Your task to perform on an android device: turn on sleep mode Image 0: 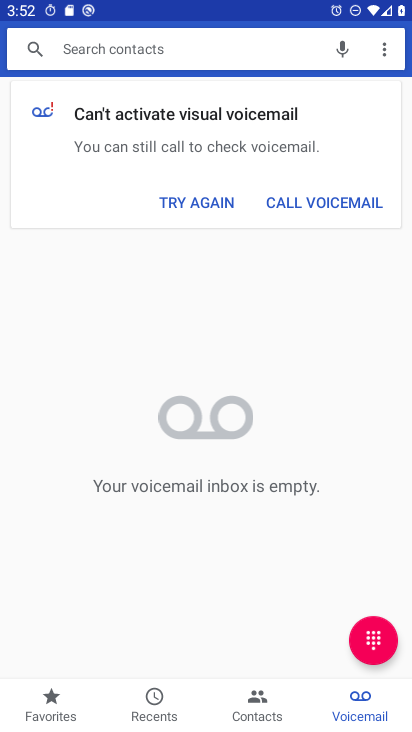
Step 0: drag from (312, 689) to (304, 252)
Your task to perform on an android device: turn on sleep mode Image 1: 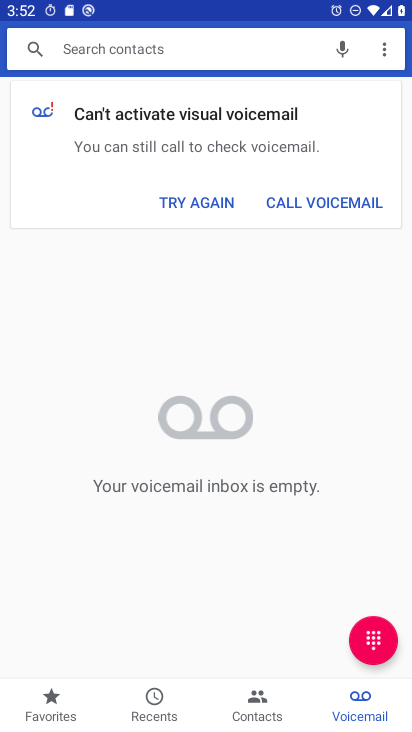
Step 1: press home button
Your task to perform on an android device: turn on sleep mode Image 2: 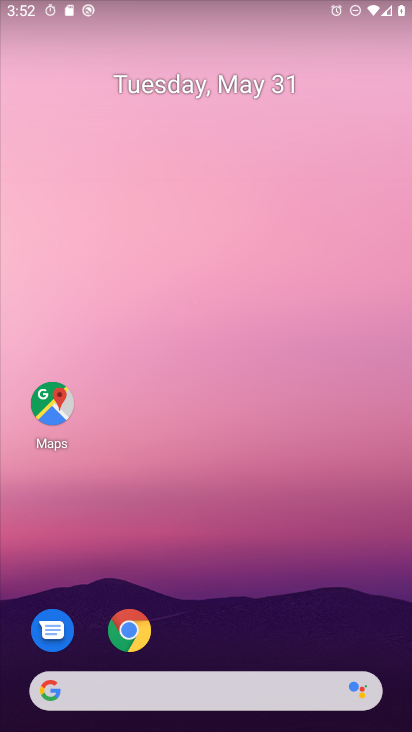
Step 2: drag from (199, 697) to (228, 48)
Your task to perform on an android device: turn on sleep mode Image 3: 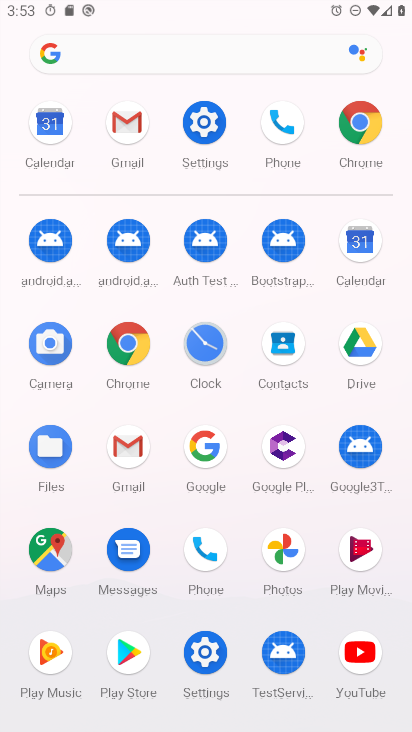
Step 3: click (205, 138)
Your task to perform on an android device: turn on sleep mode Image 4: 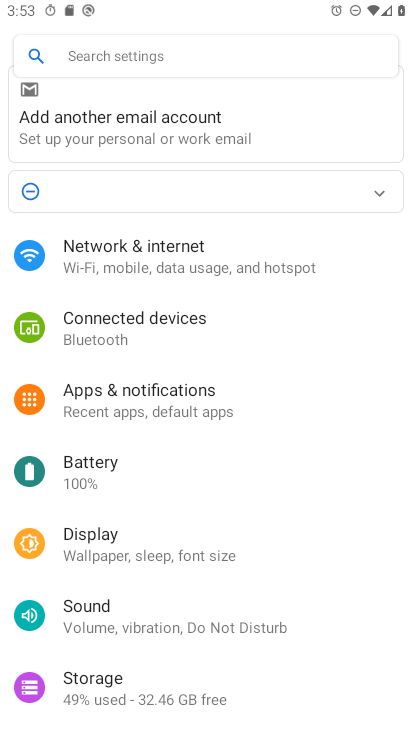
Step 4: click (129, 553)
Your task to perform on an android device: turn on sleep mode Image 5: 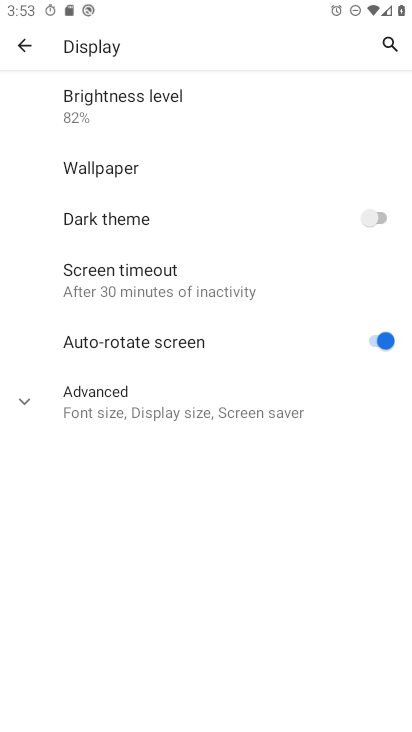
Step 5: click (132, 287)
Your task to perform on an android device: turn on sleep mode Image 6: 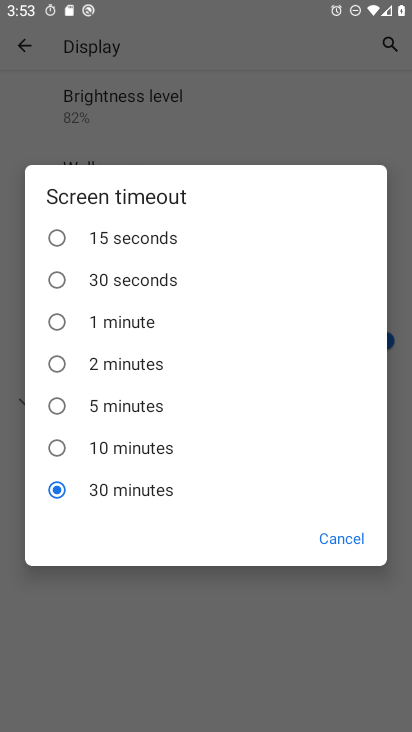
Step 6: click (353, 535)
Your task to perform on an android device: turn on sleep mode Image 7: 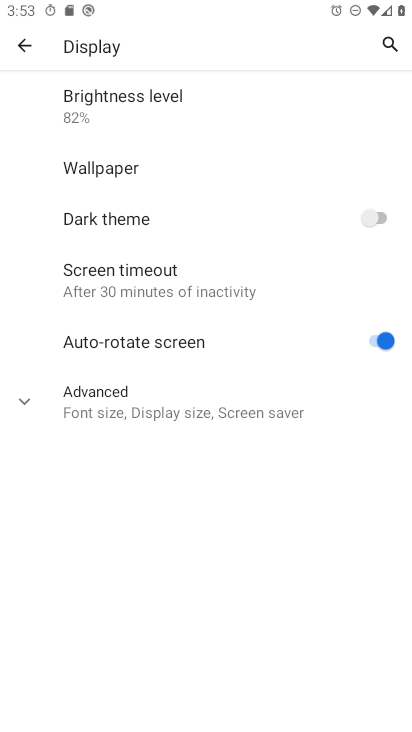
Step 7: task complete